Your task to perform on an android device: turn on notifications settings in the gmail app Image 0: 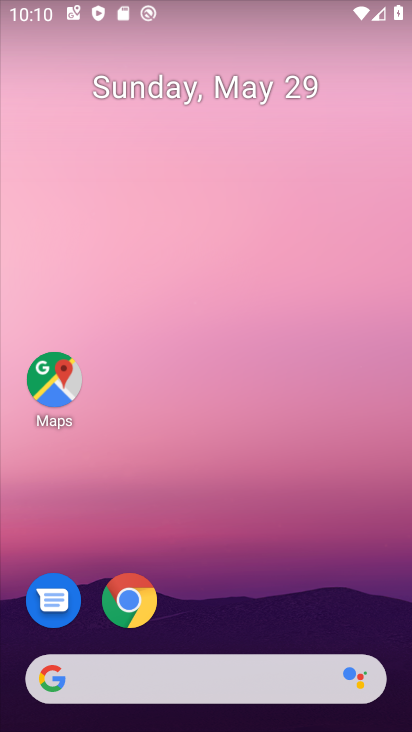
Step 0: drag from (192, 714) to (163, 51)
Your task to perform on an android device: turn on notifications settings in the gmail app Image 1: 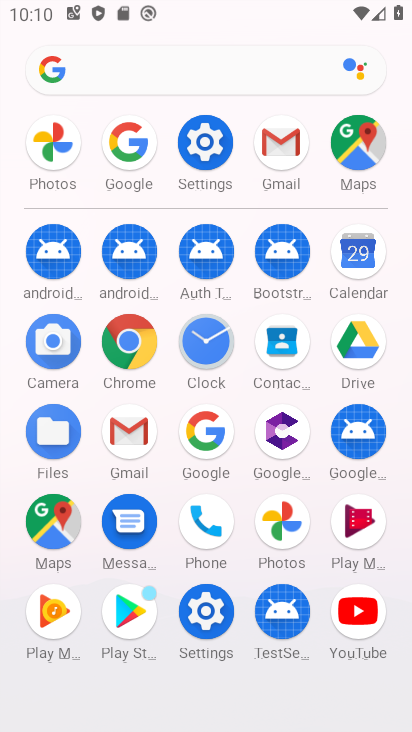
Step 1: click (128, 440)
Your task to perform on an android device: turn on notifications settings in the gmail app Image 2: 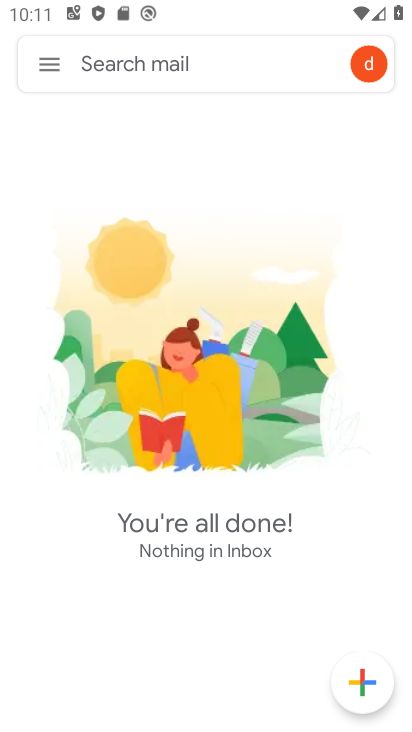
Step 2: click (52, 72)
Your task to perform on an android device: turn on notifications settings in the gmail app Image 3: 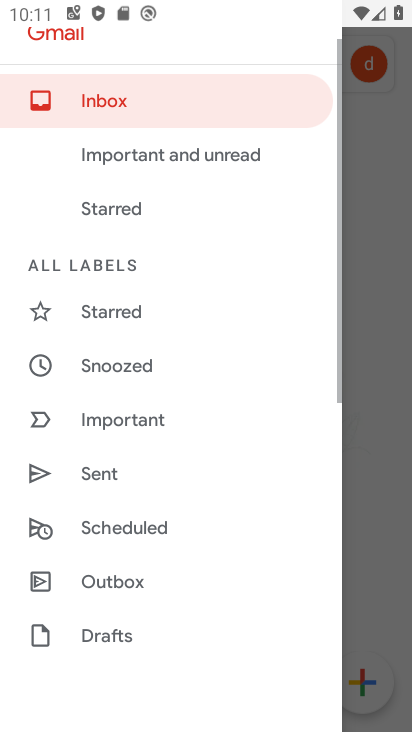
Step 3: drag from (103, 675) to (100, 143)
Your task to perform on an android device: turn on notifications settings in the gmail app Image 4: 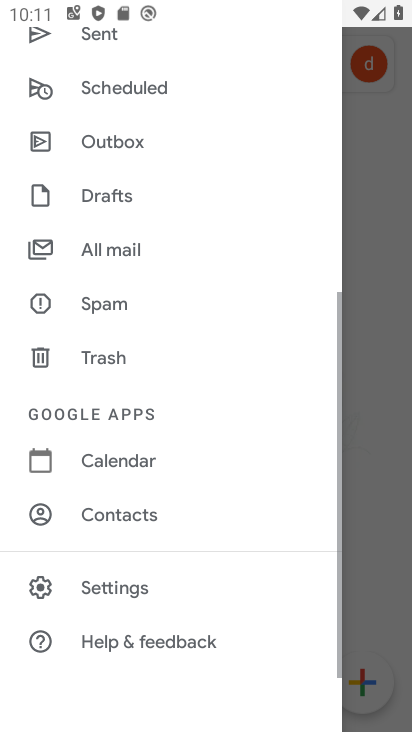
Step 4: click (108, 586)
Your task to perform on an android device: turn on notifications settings in the gmail app Image 5: 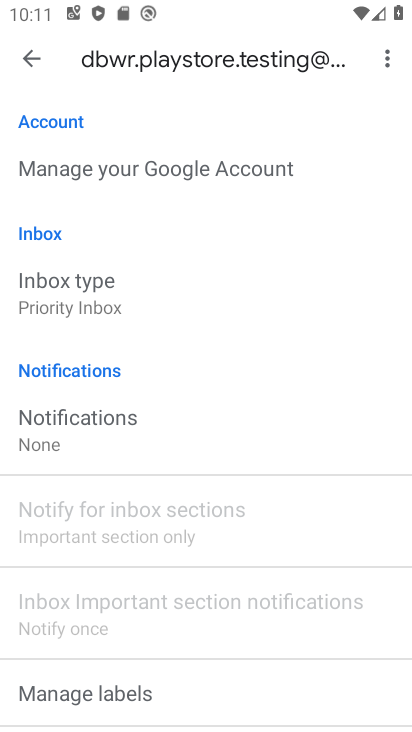
Step 5: click (95, 413)
Your task to perform on an android device: turn on notifications settings in the gmail app Image 6: 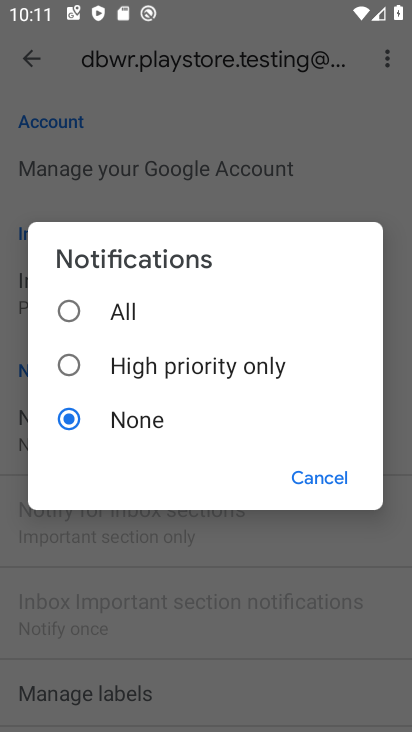
Step 6: click (68, 305)
Your task to perform on an android device: turn on notifications settings in the gmail app Image 7: 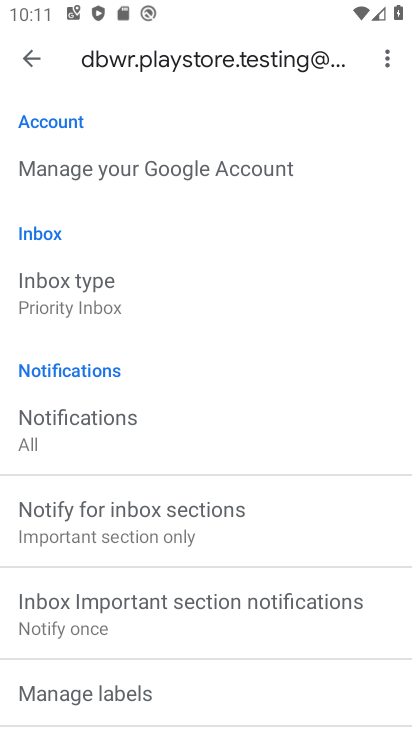
Step 7: task complete